Your task to perform on an android device: Search for Italian restaurants on Maps Image 0: 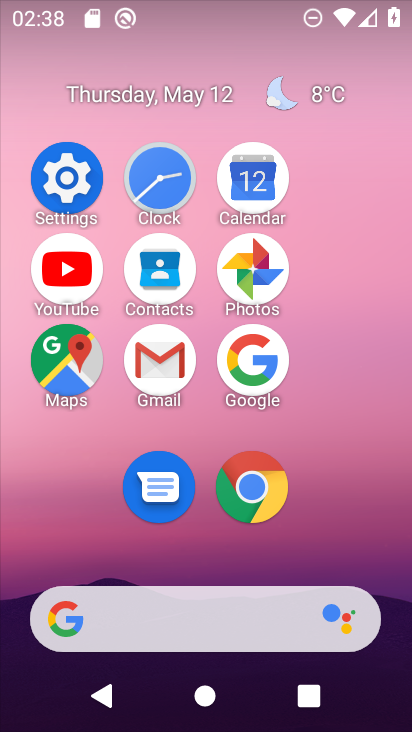
Step 0: click (73, 355)
Your task to perform on an android device: Search for Italian restaurants on Maps Image 1: 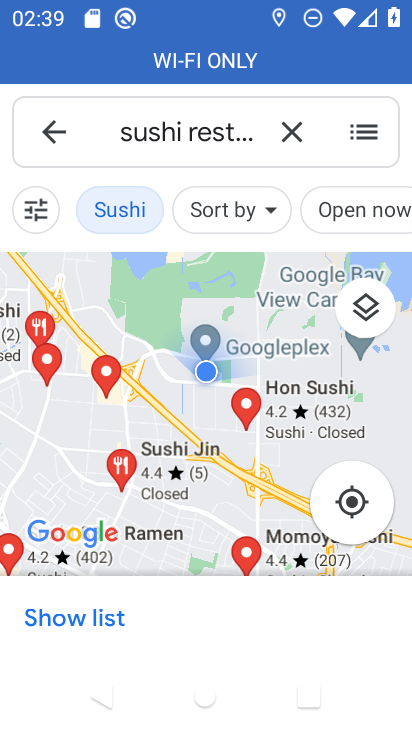
Step 1: click (296, 142)
Your task to perform on an android device: Search for Italian restaurants on Maps Image 2: 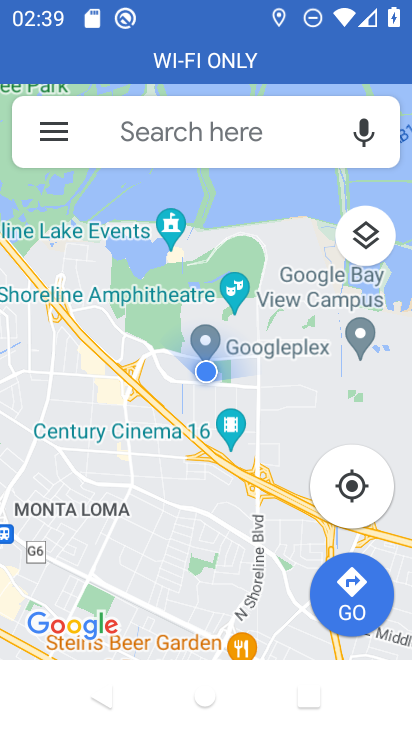
Step 2: click (173, 137)
Your task to perform on an android device: Search for Italian restaurants on Maps Image 3: 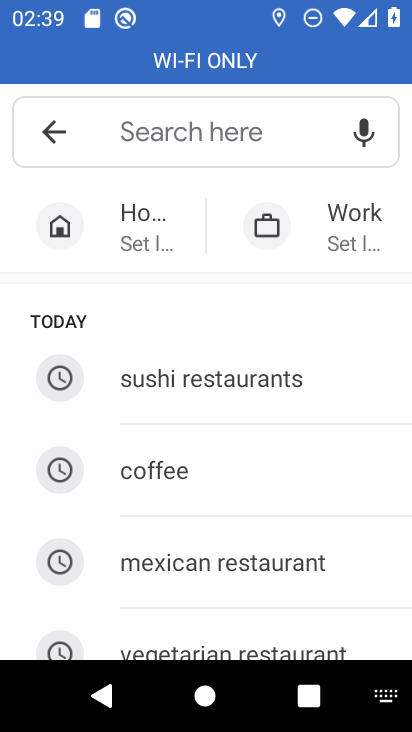
Step 3: drag from (246, 550) to (248, 207)
Your task to perform on an android device: Search for Italian restaurants on Maps Image 4: 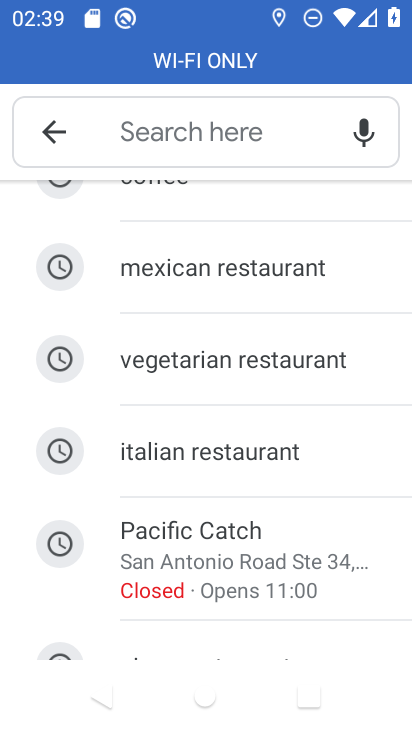
Step 4: click (252, 456)
Your task to perform on an android device: Search for Italian restaurants on Maps Image 5: 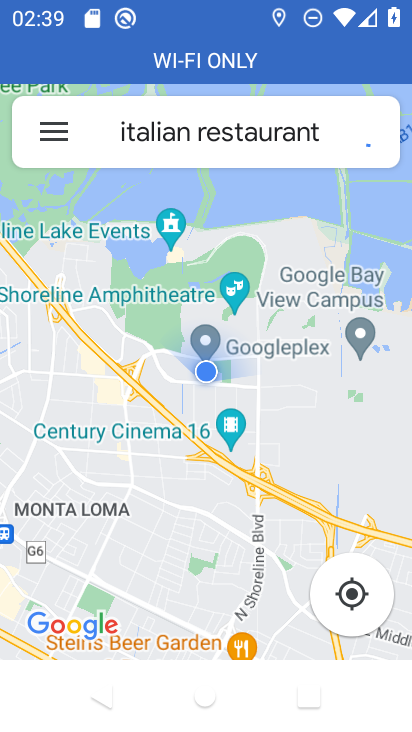
Step 5: task complete